Your task to perform on an android device: turn off location Image 0: 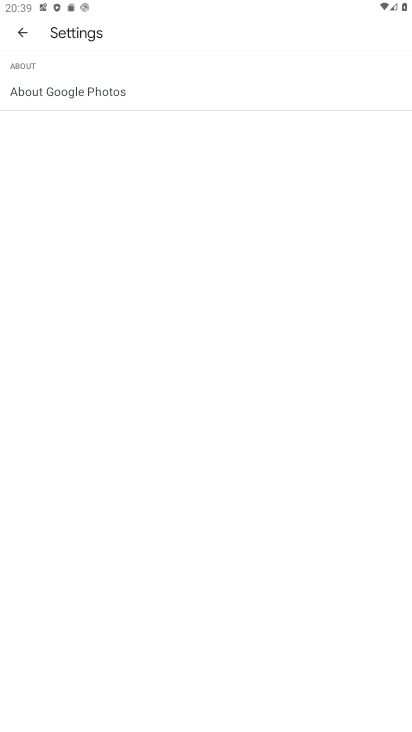
Step 0: press home button
Your task to perform on an android device: turn off location Image 1: 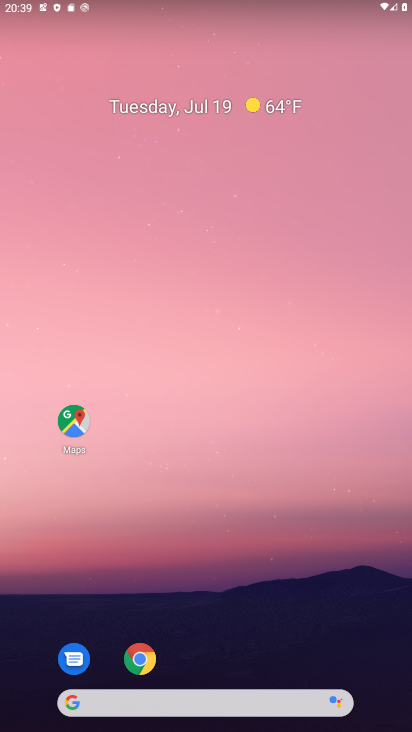
Step 1: drag from (319, 679) to (403, 142)
Your task to perform on an android device: turn off location Image 2: 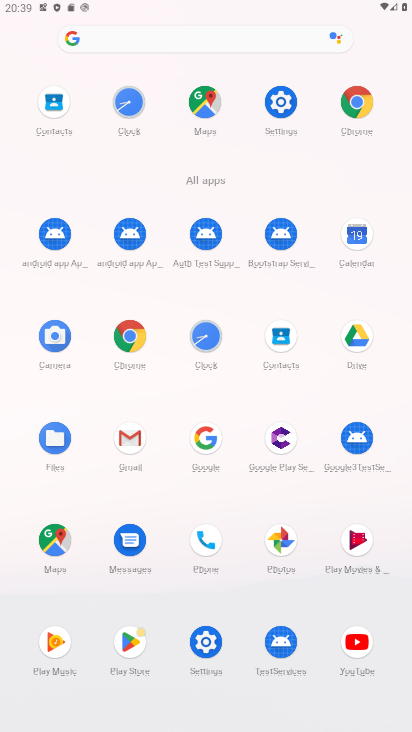
Step 2: click (273, 85)
Your task to perform on an android device: turn off location Image 3: 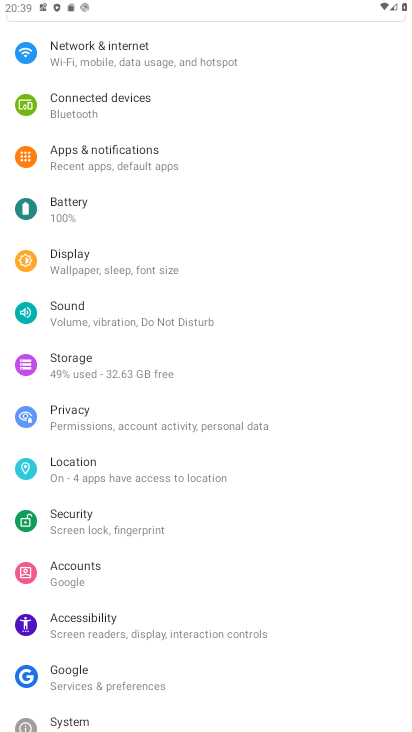
Step 3: click (99, 472)
Your task to perform on an android device: turn off location Image 4: 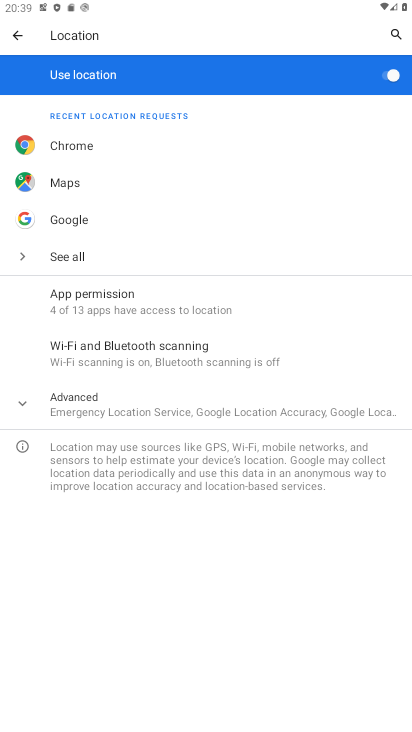
Step 4: click (382, 78)
Your task to perform on an android device: turn off location Image 5: 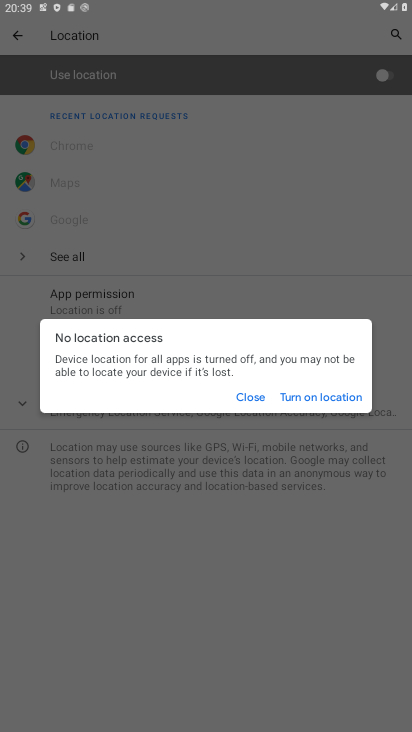
Step 5: click (390, 80)
Your task to perform on an android device: turn off location Image 6: 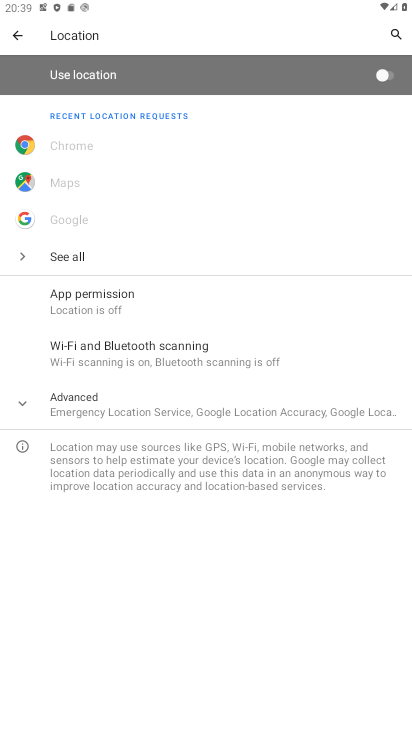
Step 6: task complete